Your task to perform on an android device: turn off notifications in google photos Image 0: 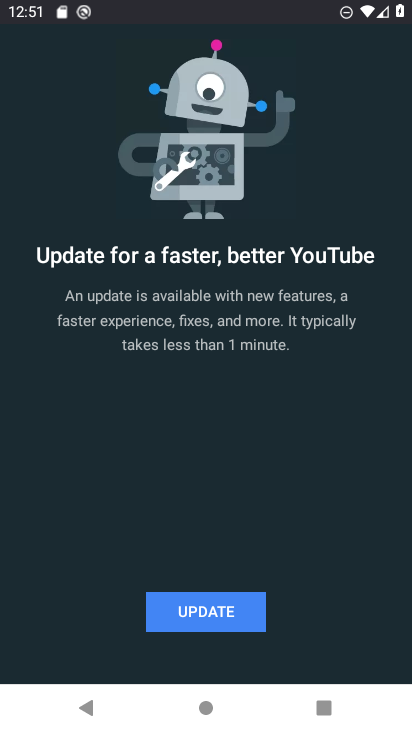
Step 0: press home button
Your task to perform on an android device: turn off notifications in google photos Image 1: 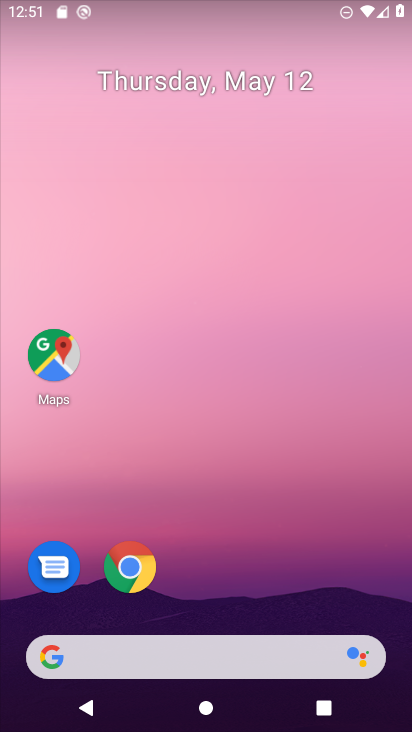
Step 1: drag from (243, 714) to (234, 69)
Your task to perform on an android device: turn off notifications in google photos Image 2: 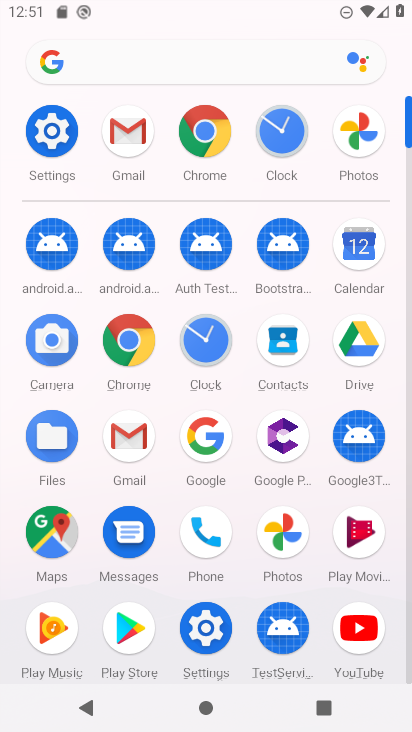
Step 2: click (266, 526)
Your task to perform on an android device: turn off notifications in google photos Image 3: 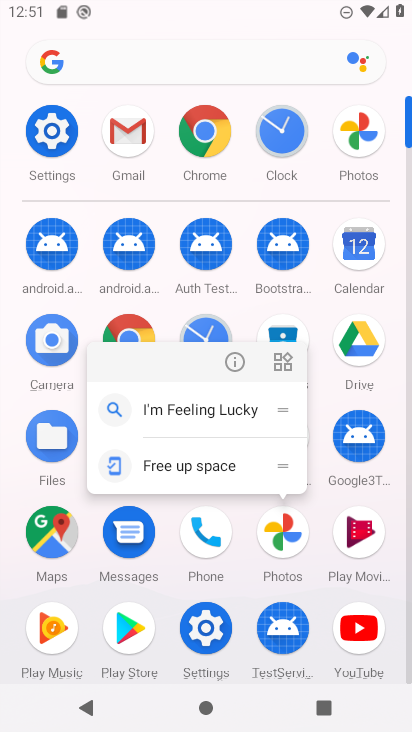
Step 3: click (233, 346)
Your task to perform on an android device: turn off notifications in google photos Image 4: 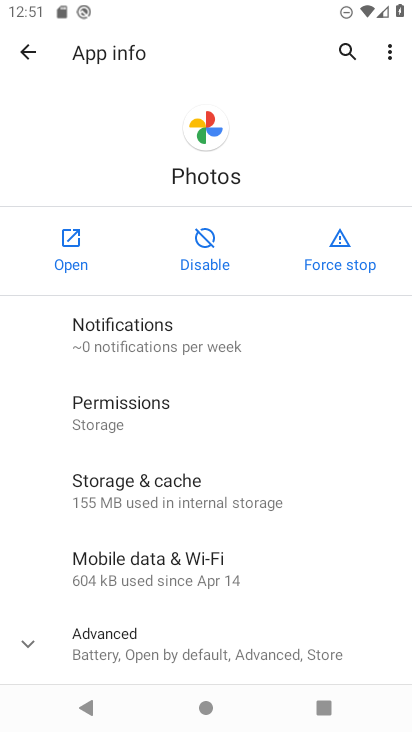
Step 4: click (158, 327)
Your task to perform on an android device: turn off notifications in google photos Image 5: 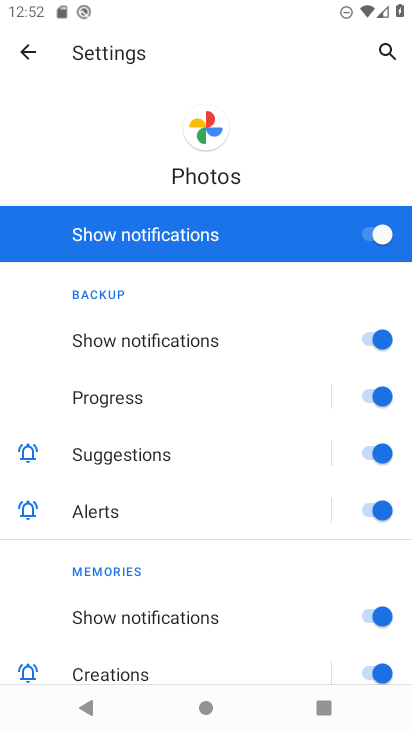
Step 5: click (380, 238)
Your task to perform on an android device: turn off notifications in google photos Image 6: 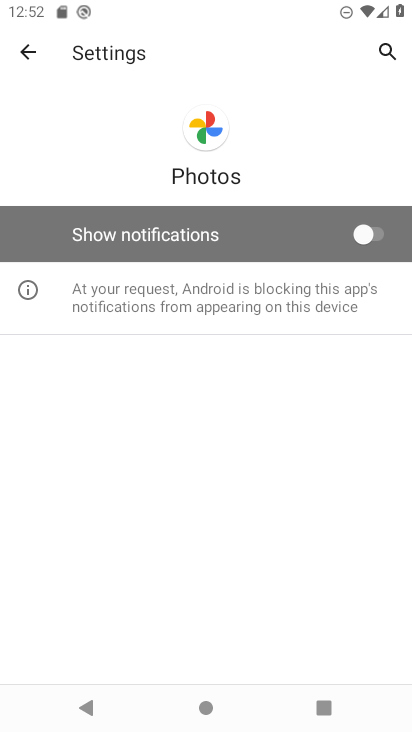
Step 6: task complete